Your task to perform on an android device: manage bookmarks in the chrome app Image 0: 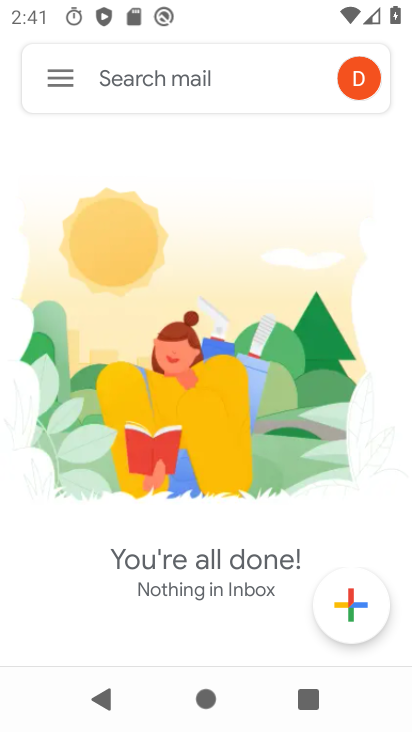
Step 0: press home button
Your task to perform on an android device: manage bookmarks in the chrome app Image 1: 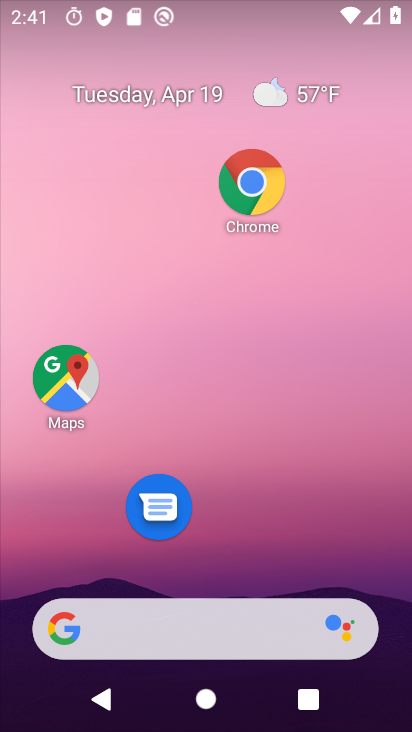
Step 1: click (256, 215)
Your task to perform on an android device: manage bookmarks in the chrome app Image 2: 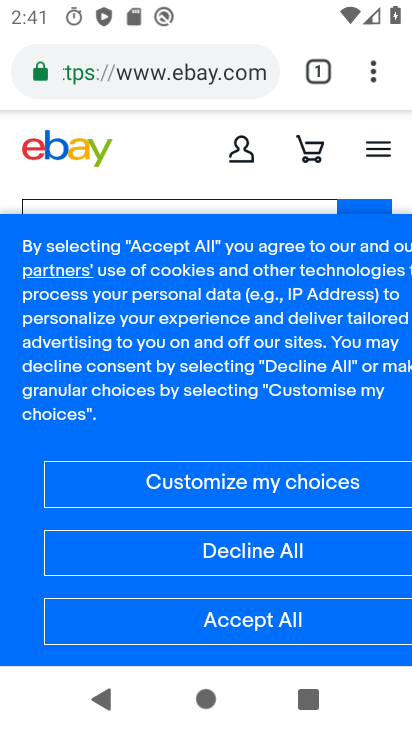
Step 2: click (375, 76)
Your task to perform on an android device: manage bookmarks in the chrome app Image 3: 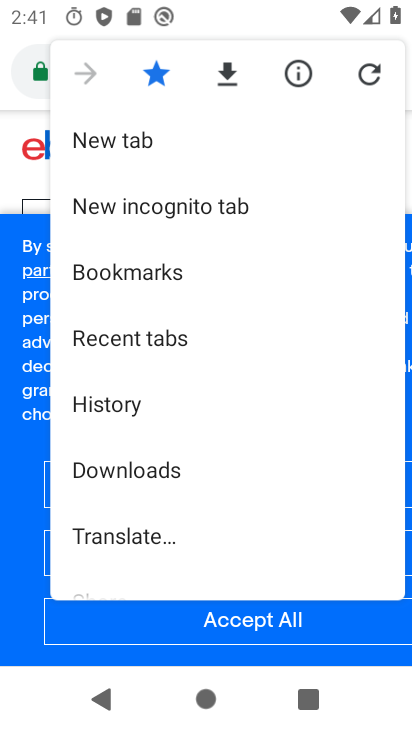
Step 3: click (222, 274)
Your task to perform on an android device: manage bookmarks in the chrome app Image 4: 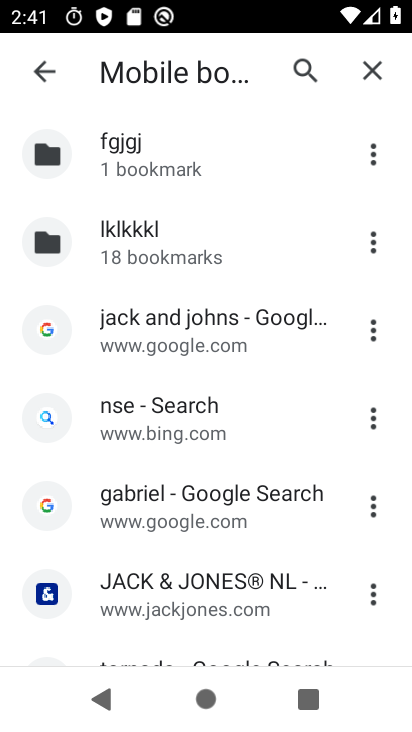
Step 4: task complete